Your task to perform on an android device: Open the phone app and click the voicemail tab. Image 0: 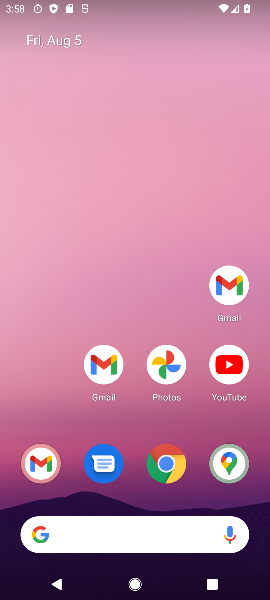
Step 0: drag from (157, 531) to (164, 352)
Your task to perform on an android device: Open the phone app and click the voicemail tab. Image 1: 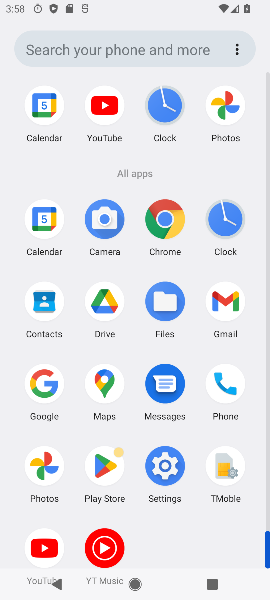
Step 1: drag from (188, 493) to (171, 168)
Your task to perform on an android device: Open the phone app and click the voicemail tab. Image 2: 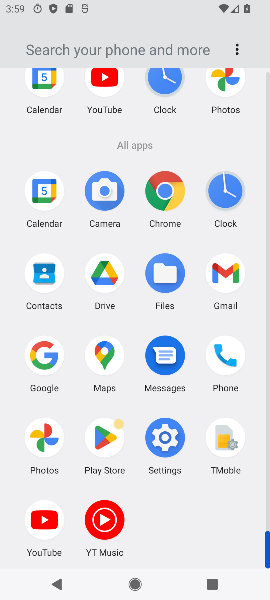
Step 2: click (216, 345)
Your task to perform on an android device: Open the phone app and click the voicemail tab. Image 3: 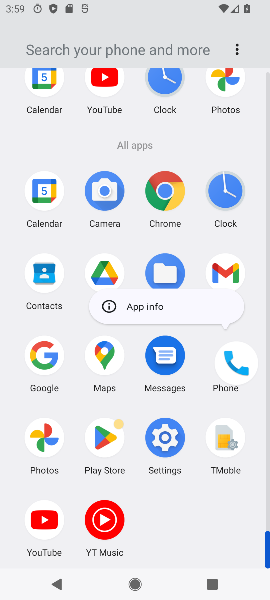
Step 3: click (228, 352)
Your task to perform on an android device: Open the phone app and click the voicemail tab. Image 4: 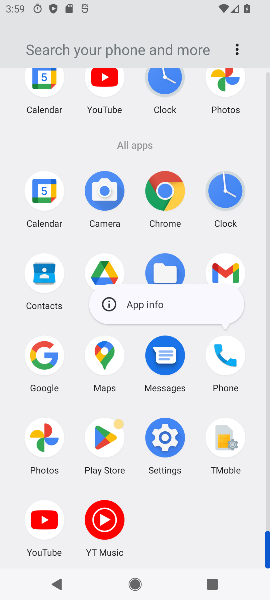
Step 4: click (230, 353)
Your task to perform on an android device: Open the phone app and click the voicemail tab. Image 5: 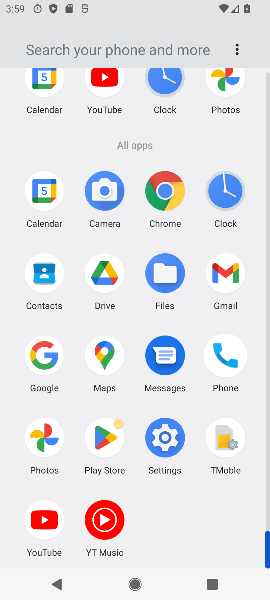
Step 5: click (234, 352)
Your task to perform on an android device: Open the phone app and click the voicemail tab. Image 6: 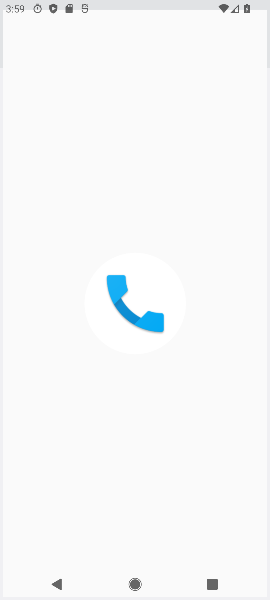
Step 6: click (234, 352)
Your task to perform on an android device: Open the phone app and click the voicemail tab. Image 7: 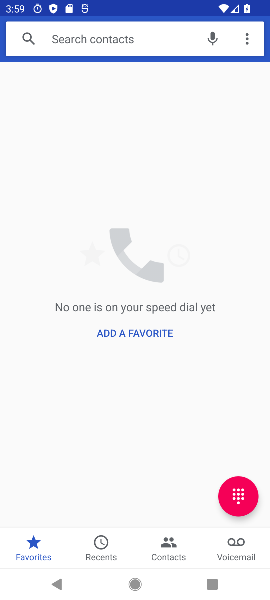
Step 7: click (243, 544)
Your task to perform on an android device: Open the phone app and click the voicemail tab. Image 8: 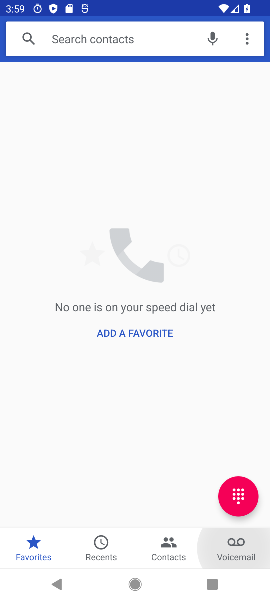
Step 8: click (242, 552)
Your task to perform on an android device: Open the phone app and click the voicemail tab. Image 9: 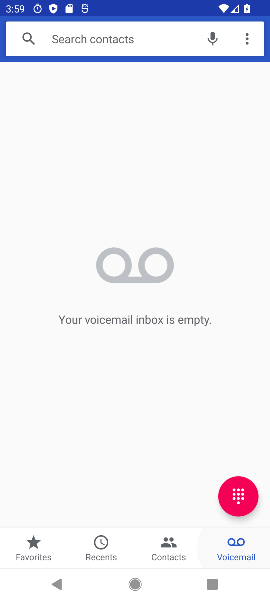
Step 9: click (241, 551)
Your task to perform on an android device: Open the phone app and click the voicemail tab. Image 10: 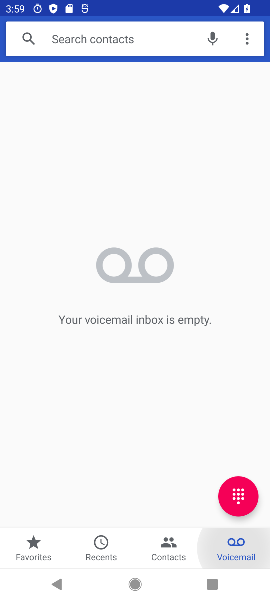
Step 10: click (241, 551)
Your task to perform on an android device: Open the phone app and click the voicemail tab. Image 11: 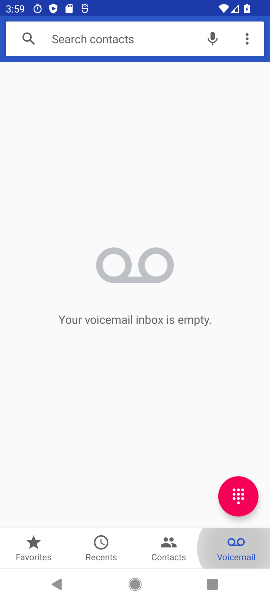
Step 11: click (241, 555)
Your task to perform on an android device: Open the phone app and click the voicemail tab. Image 12: 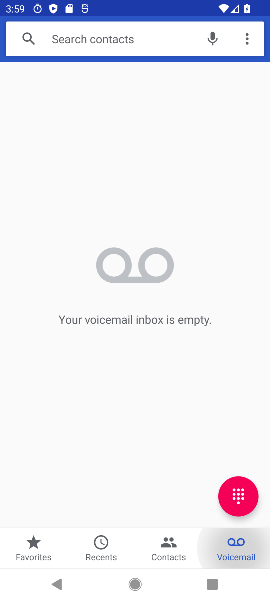
Step 12: click (242, 548)
Your task to perform on an android device: Open the phone app and click the voicemail tab. Image 13: 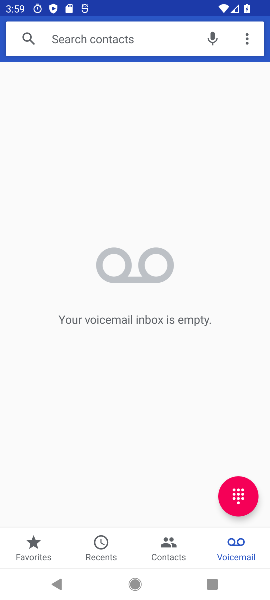
Step 13: task complete